Your task to perform on an android device: Go to location settings Image 0: 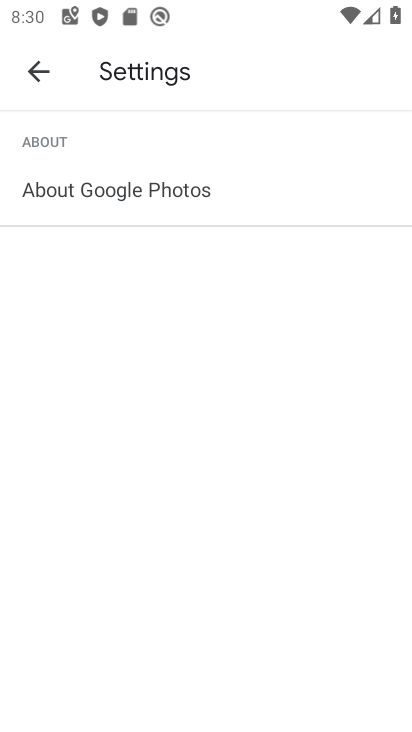
Step 0: press home button
Your task to perform on an android device: Go to location settings Image 1: 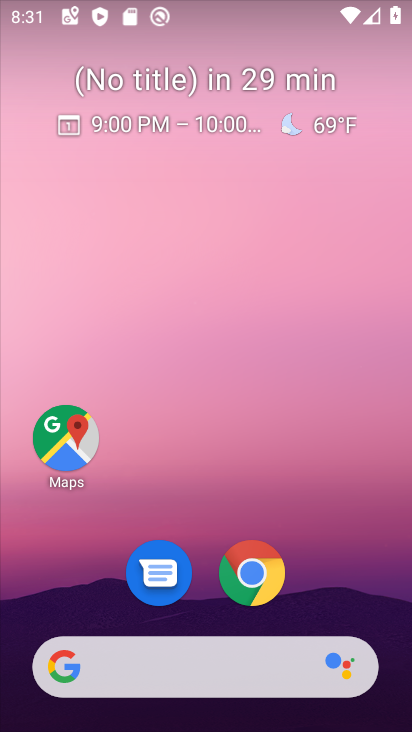
Step 1: drag from (208, 598) to (309, 91)
Your task to perform on an android device: Go to location settings Image 2: 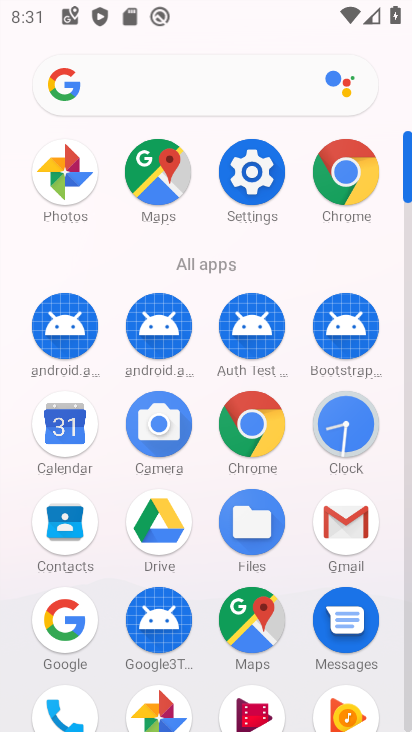
Step 2: click (271, 180)
Your task to perform on an android device: Go to location settings Image 3: 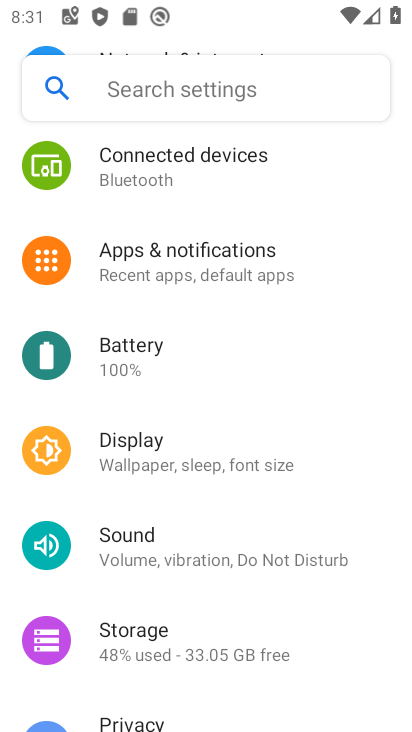
Step 3: drag from (190, 570) to (200, 403)
Your task to perform on an android device: Go to location settings Image 4: 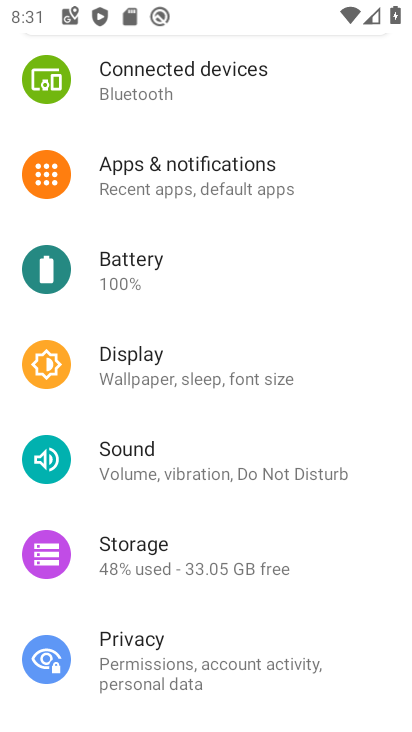
Step 4: drag from (177, 669) to (225, 275)
Your task to perform on an android device: Go to location settings Image 5: 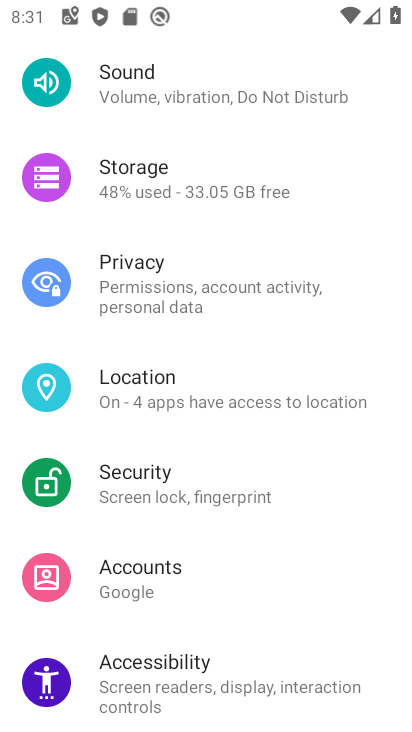
Step 5: click (188, 407)
Your task to perform on an android device: Go to location settings Image 6: 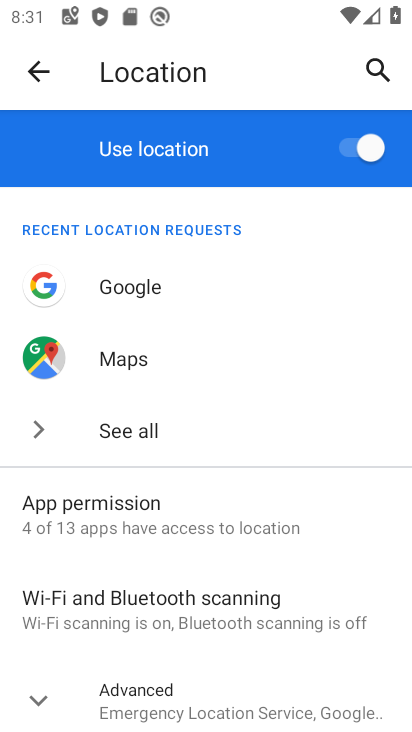
Step 6: task complete